Your task to perform on an android device: Open Google Chrome Image 0: 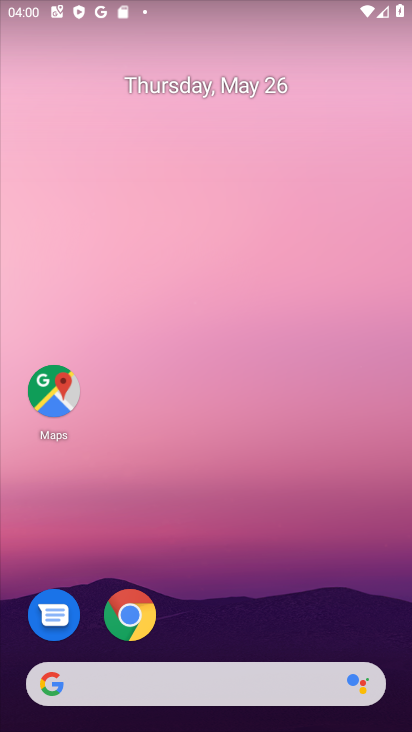
Step 0: click (129, 614)
Your task to perform on an android device: Open Google Chrome Image 1: 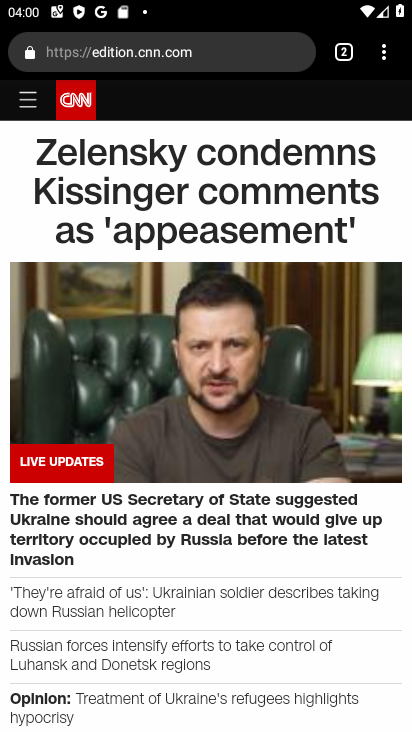
Step 1: task complete